Your task to perform on an android device: change your default location settings in chrome Image 0: 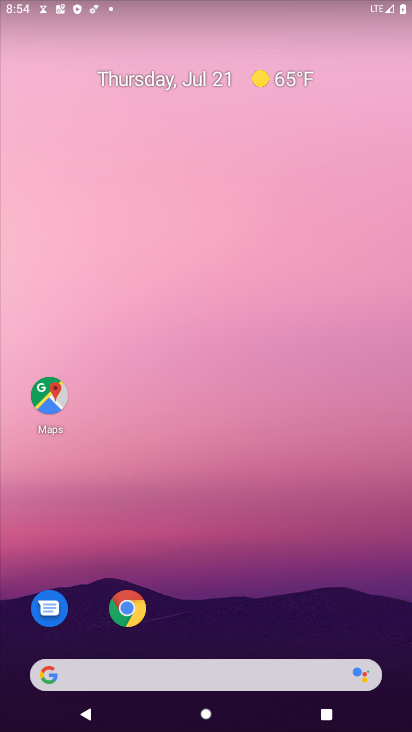
Step 0: click (128, 607)
Your task to perform on an android device: change your default location settings in chrome Image 1: 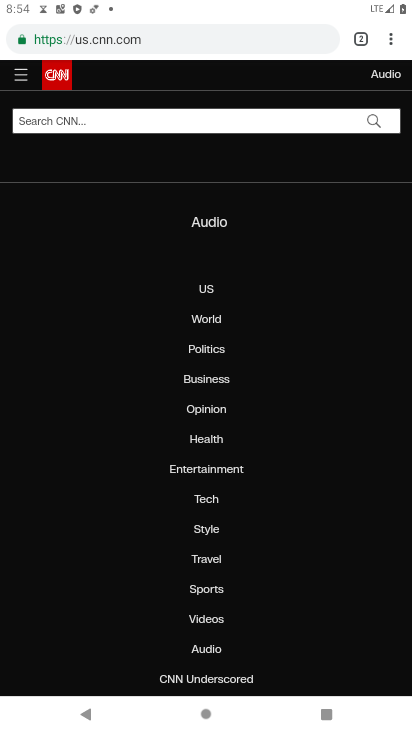
Step 1: click (390, 38)
Your task to perform on an android device: change your default location settings in chrome Image 2: 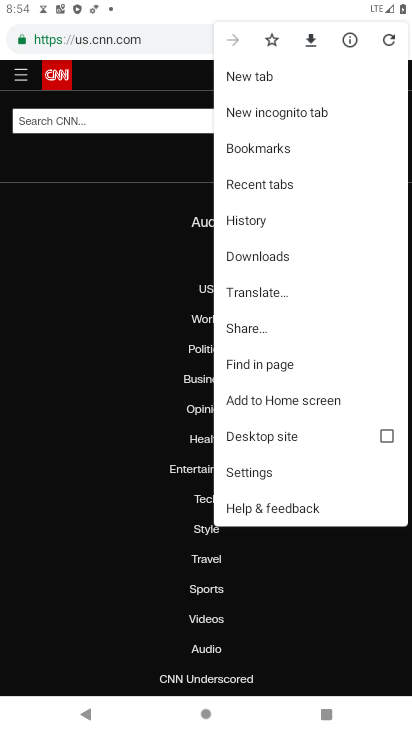
Step 2: click (250, 471)
Your task to perform on an android device: change your default location settings in chrome Image 3: 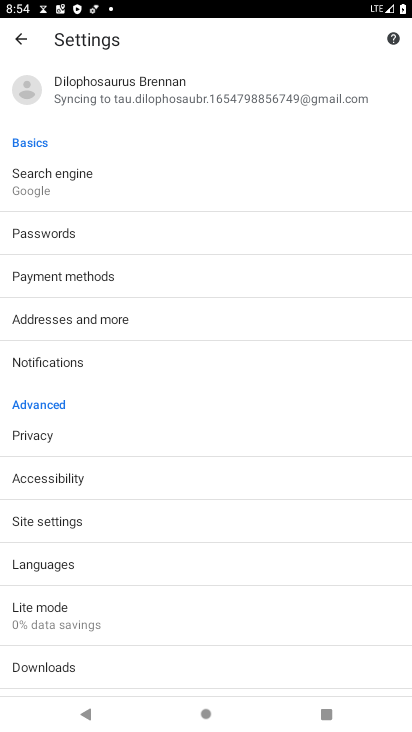
Step 3: click (47, 521)
Your task to perform on an android device: change your default location settings in chrome Image 4: 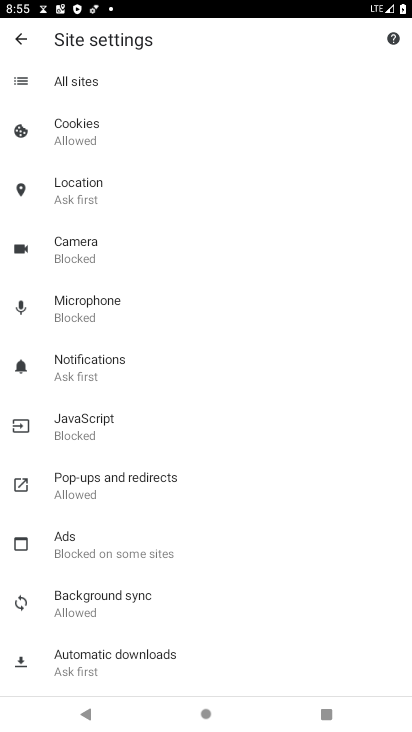
Step 4: click (85, 194)
Your task to perform on an android device: change your default location settings in chrome Image 5: 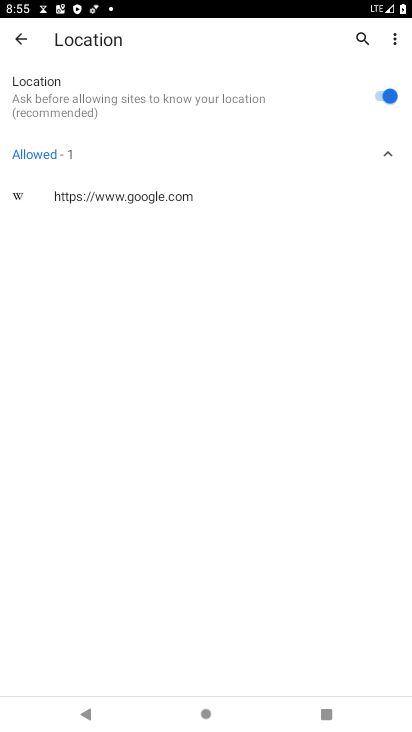
Step 5: click (382, 97)
Your task to perform on an android device: change your default location settings in chrome Image 6: 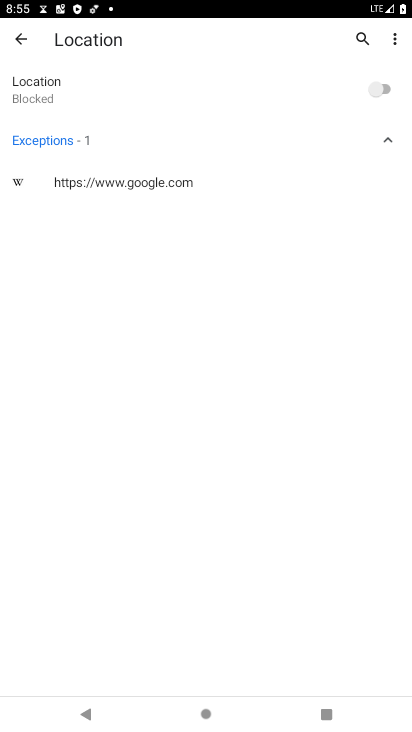
Step 6: task complete